Your task to perform on an android device: Open maps Image 0: 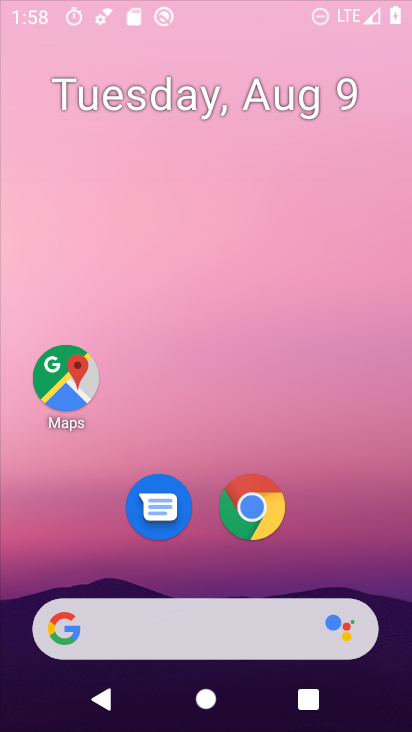
Step 0: drag from (315, 432) to (340, 106)
Your task to perform on an android device: Open maps Image 1: 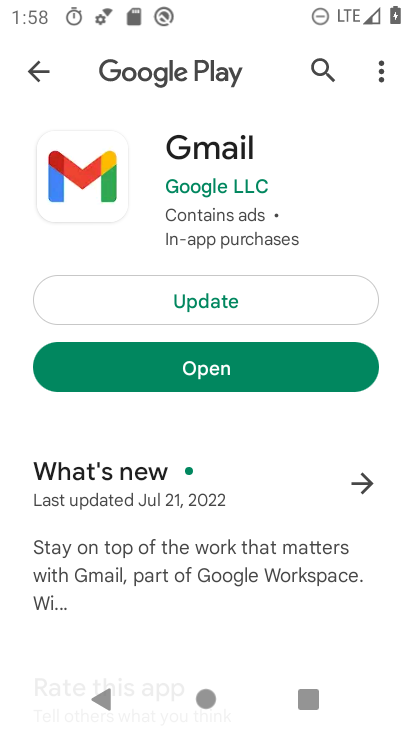
Step 1: task complete